Your task to perform on an android device: Go to Android settings Image 0: 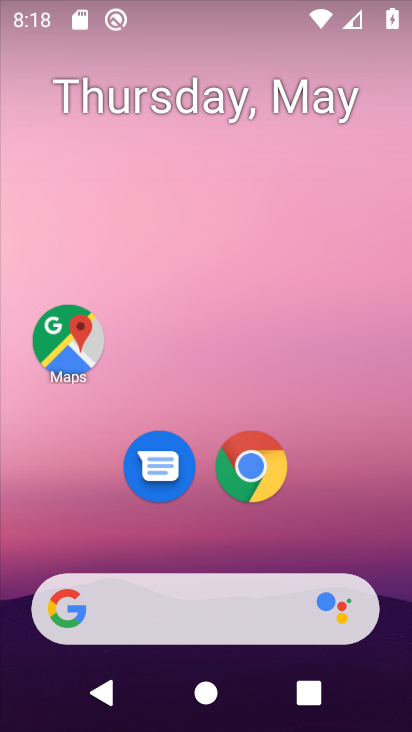
Step 0: drag from (362, 548) to (369, 43)
Your task to perform on an android device: Go to Android settings Image 1: 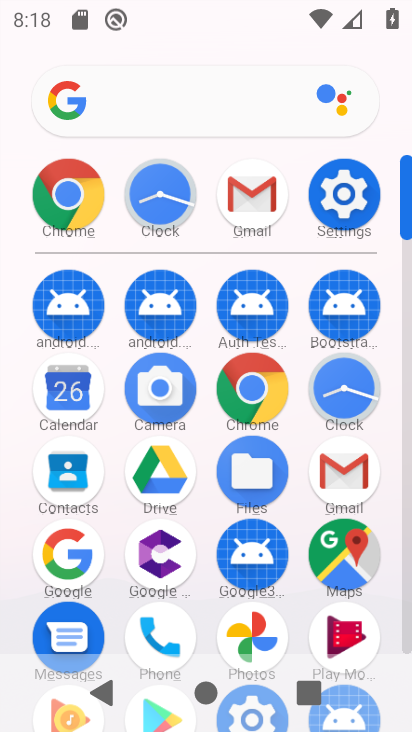
Step 1: click (343, 160)
Your task to perform on an android device: Go to Android settings Image 2: 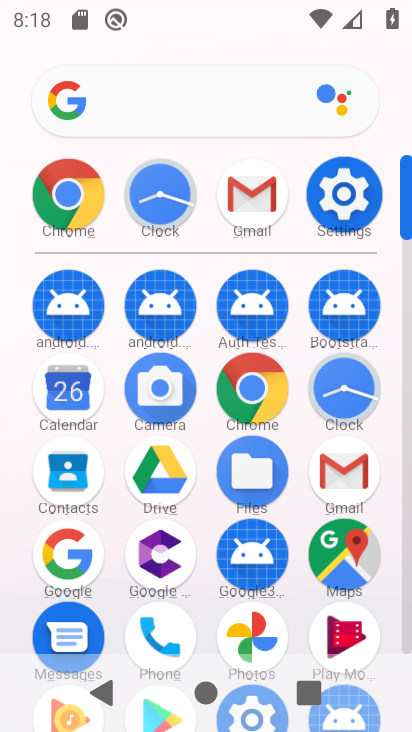
Step 2: click (343, 160)
Your task to perform on an android device: Go to Android settings Image 3: 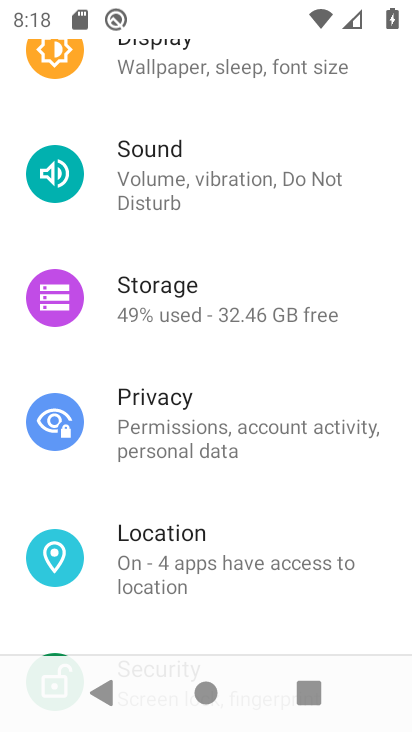
Step 3: task complete